Your task to perform on an android device: delete a single message in the gmail app Image 0: 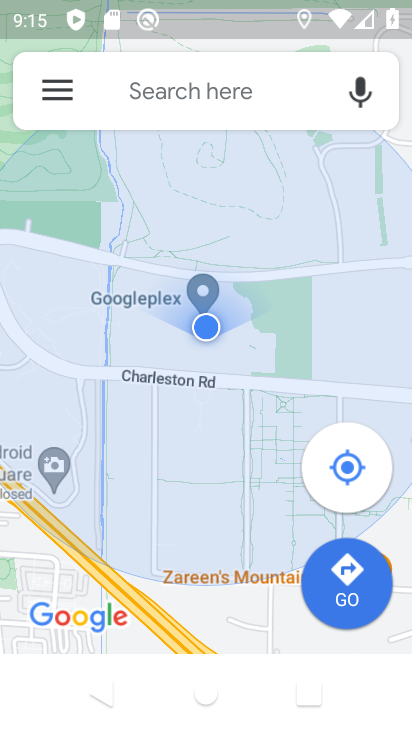
Step 0: press home button
Your task to perform on an android device: delete a single message in the gmail app Image 1: 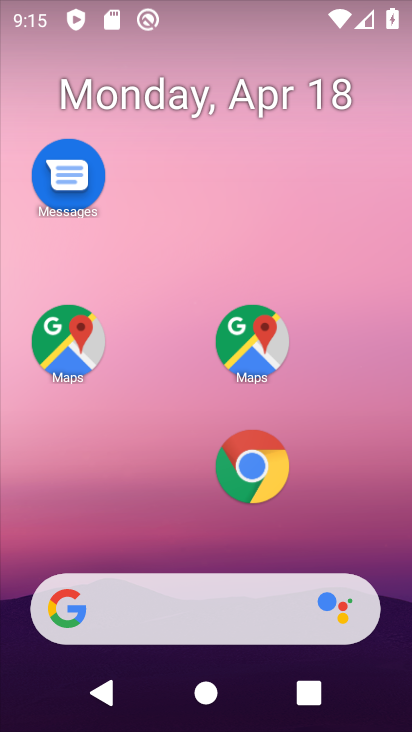
Step 1: drag from (157, 413) to (313, 20)
Your task to perform on an android device: delete a single message in the gmail app Image 2: 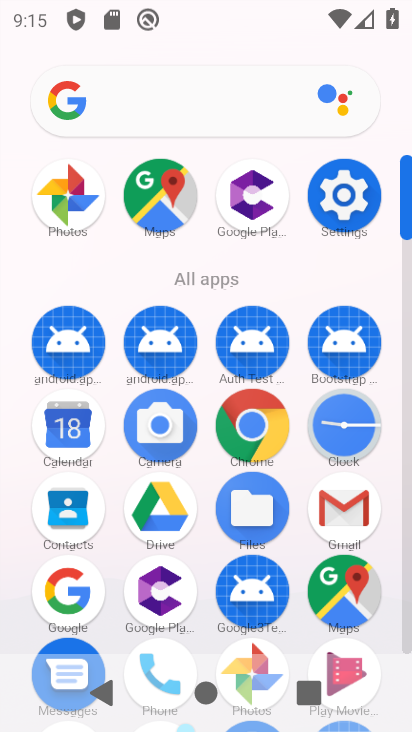
Step 2: click (346, 511)
Your task to perform on an android device: delete a single message in the gmail app Image 3: 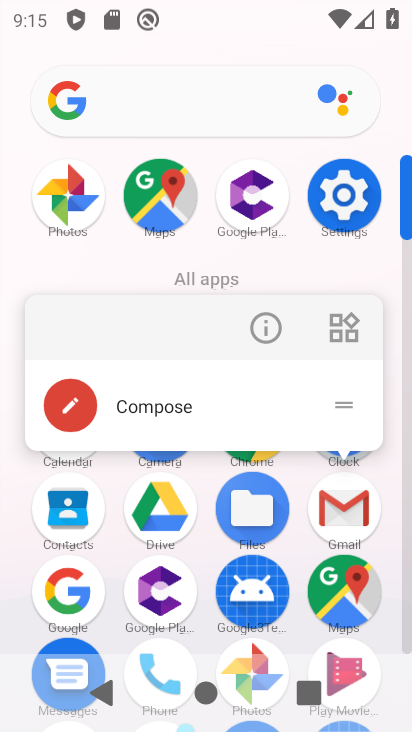
Step 3: click (347, 509)
Your task to perform on an android device: delete a single message in the gmail app Image 4: 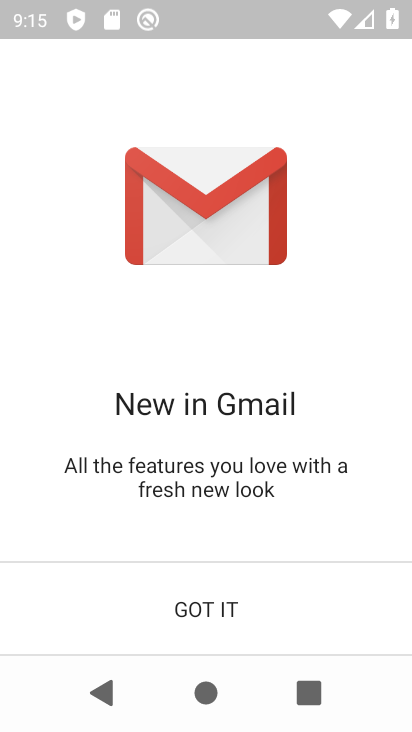
Step 4: click (208, 608)
Your task to perform on an android device: delete a single message in the gmail app Image 5: 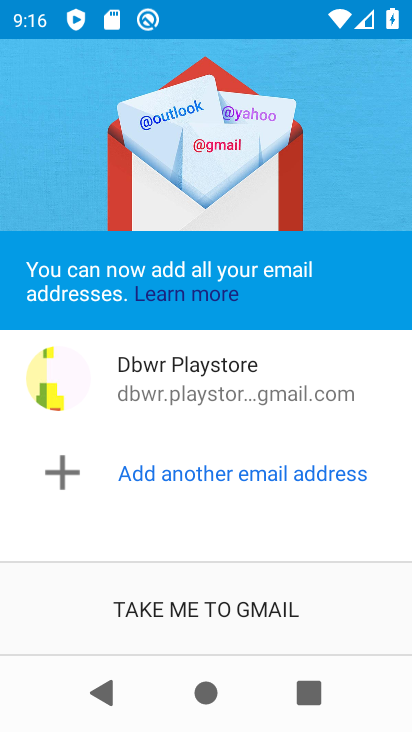
Step 5: click (205, 612)
Your task to perform on an android device: delete a single message in the gmail app Image 6: 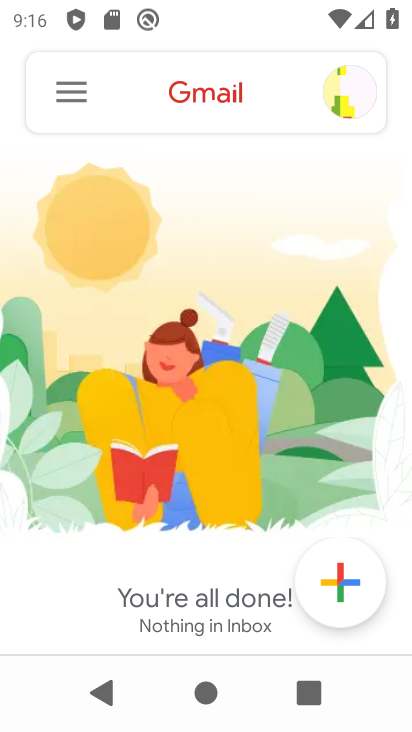
Step 6: click (66, 91)
Your task to perform on an android device: delete a single message in the gmail app Image 7: 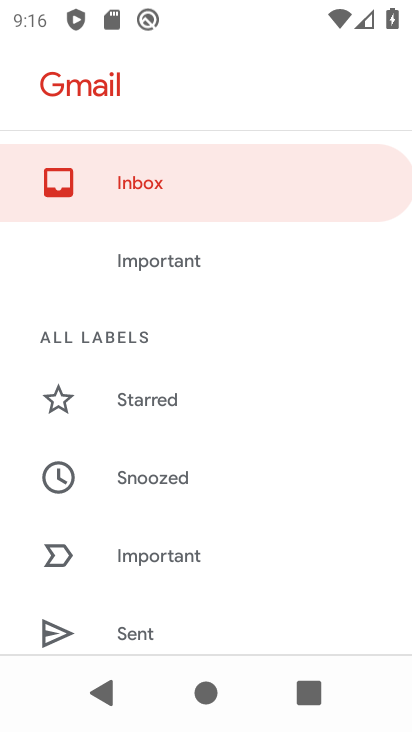
Step 7: drag from (137, 568) to (158, 8)
Your task to perform on an android device: delete a single message in the gmail app Image 8: 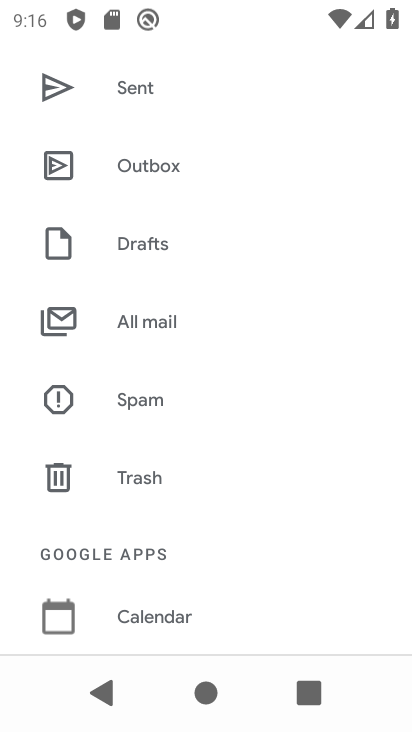
Step 8: drag from (146, 500) to (199, 87)
Your task to perform on an android device: delete a single message in the gmail app Image 9: 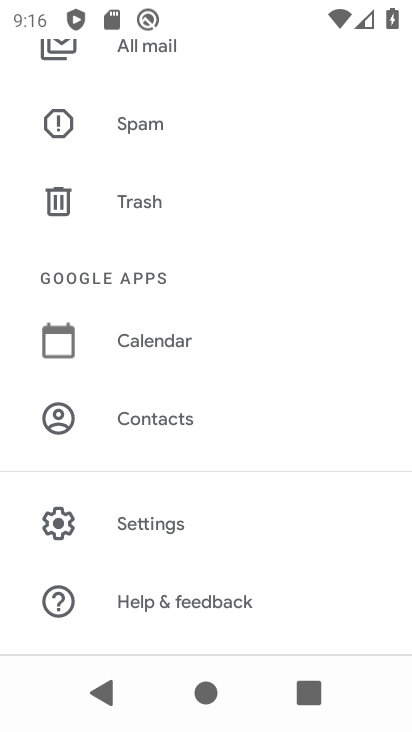
Step 9: click (150, 48)
Your task to perform on an android device: delete a single message in the gmail app Image 10: 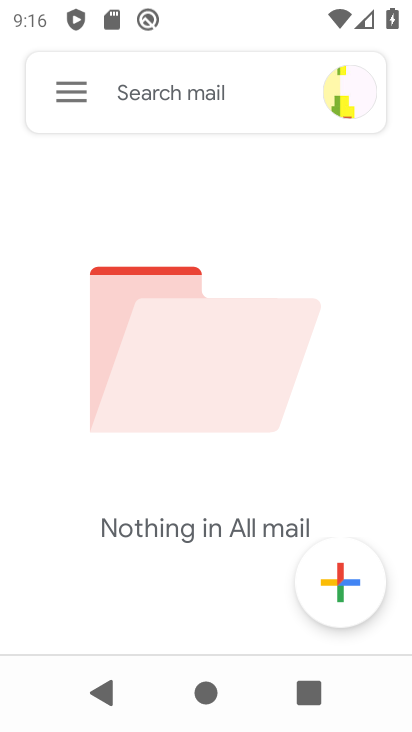
Step 10: task complete